Your task to perform on an android device: toggle improve location accuracy Image 0: 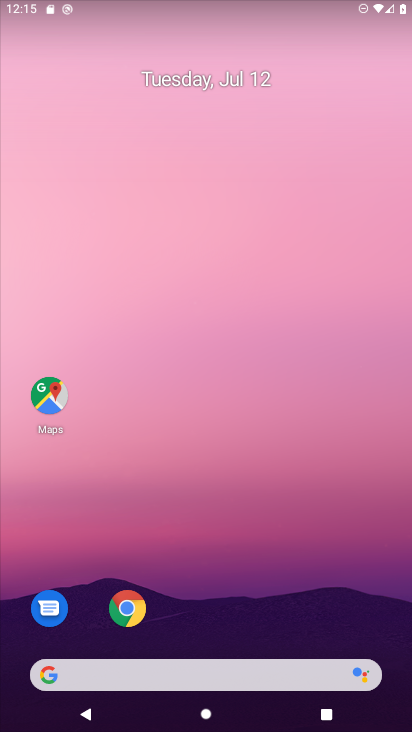
Step 0: drag from (219, 637) to (149, 60)
Your task to perform on an android device: toggle improve location accuracy Image 1: 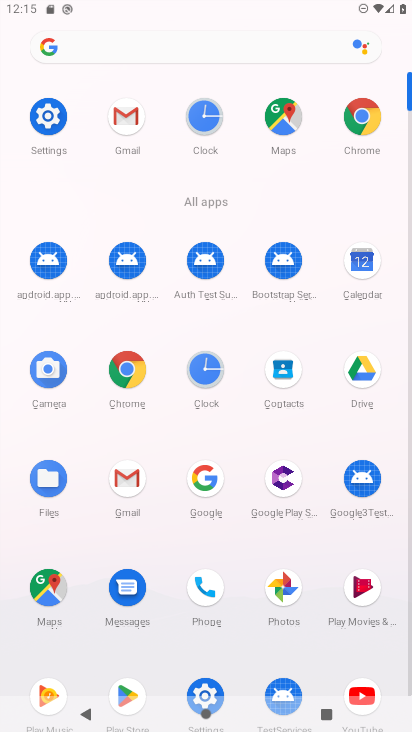
Step 1: click (35, 134)
Your task to perform on an android device: toggle improve location accuracy Image 2: 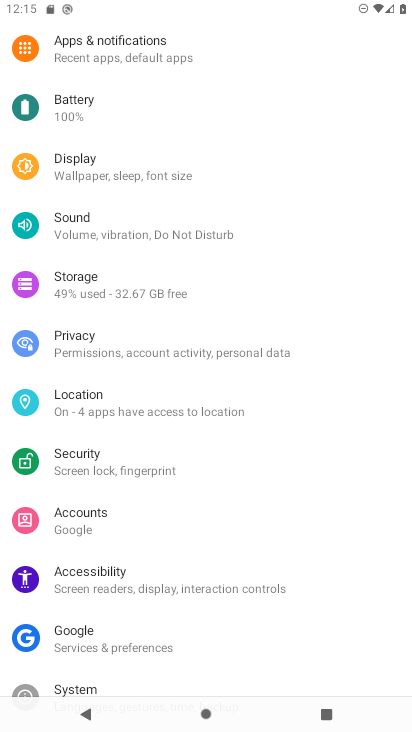
Step 2: click (135, 391)
Your task to perform on an android device: toggle improve location accuracy Image 3: 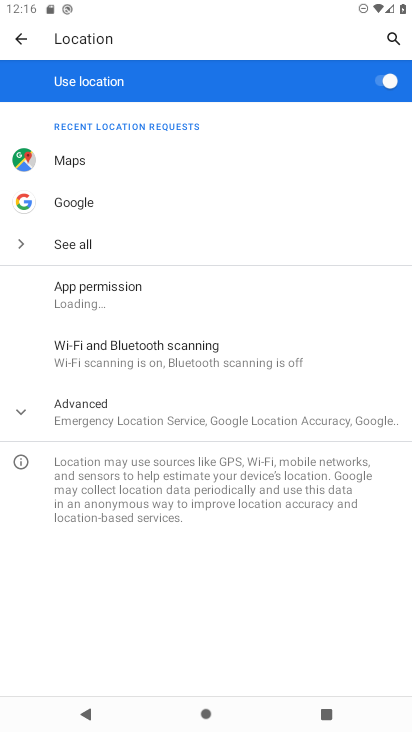
Step 3: click (160, 419)
Your task to perform on an android device: toggle improve location accuracy Image 4: 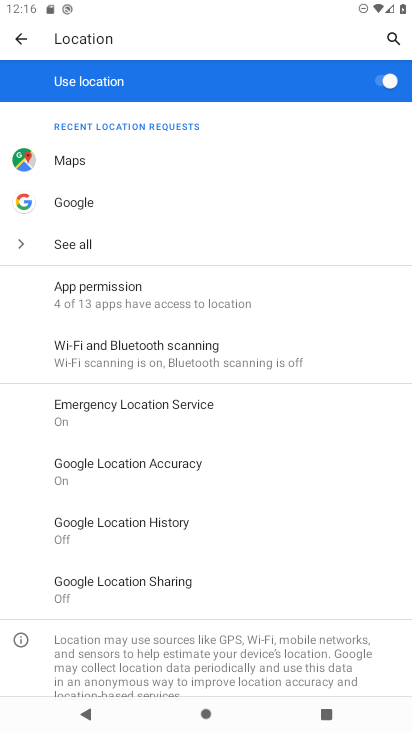
Step 4: click (165, 455)
Your task to perform on an android device: toggle improve location accuracy Image 5: 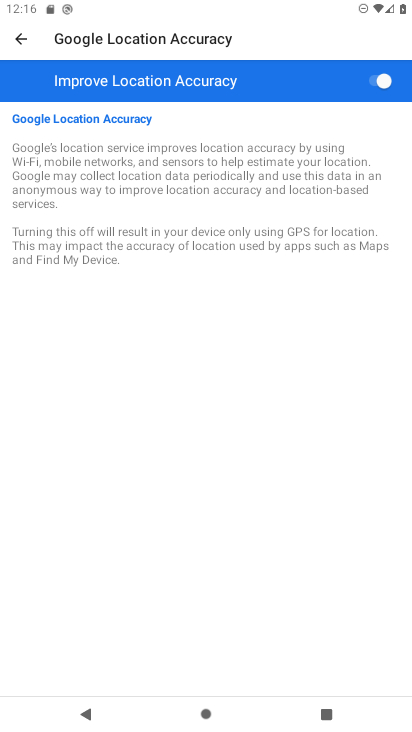
Step 5: click (377, 78)
Your task to perform on an android device: toggle improve location accuracy Image 6: 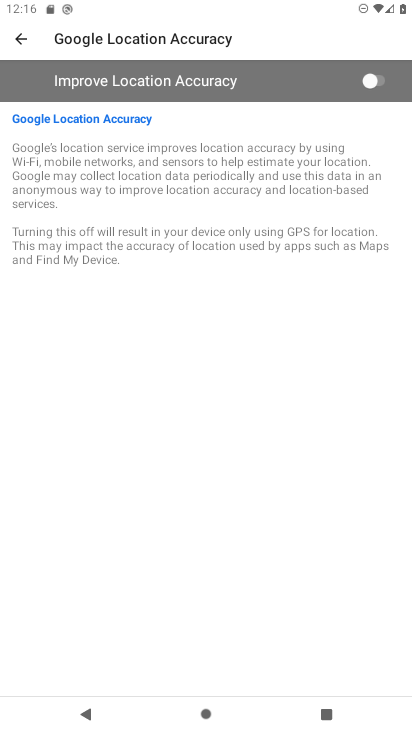
Step 6: task complete